Your task to perform on an android device: turn on notifications settings in the gmail app Image 0: 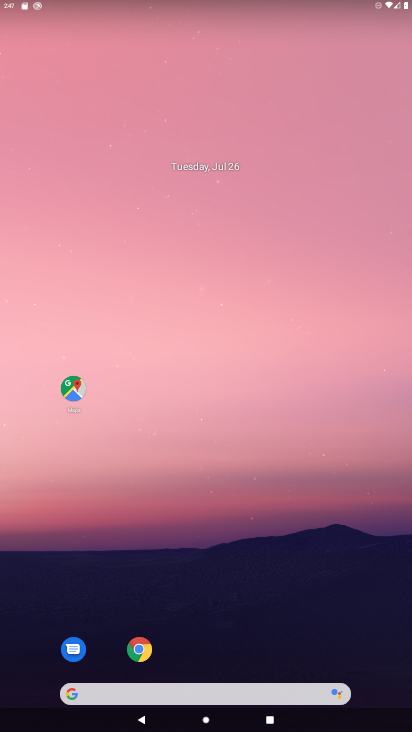
Step 0: drag from (237, 662) to (211, 324)
Your task to perform on an android device: turn on notifications settings in the gmail app Image 1: 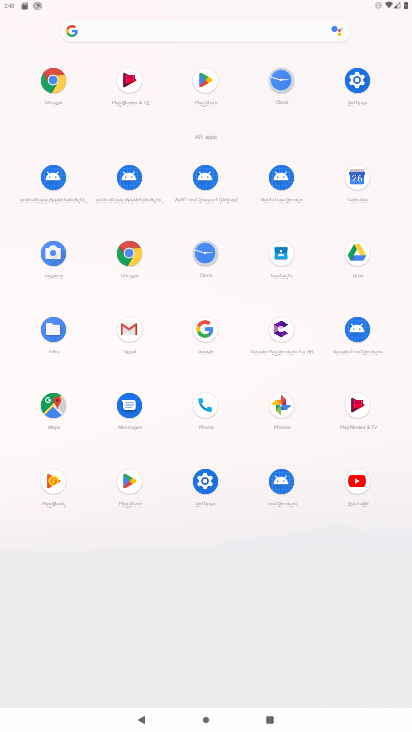
Step 1: click (133, 328)
Your task to perform on an android device: turn on notifications settings in the gmail app Image 2: 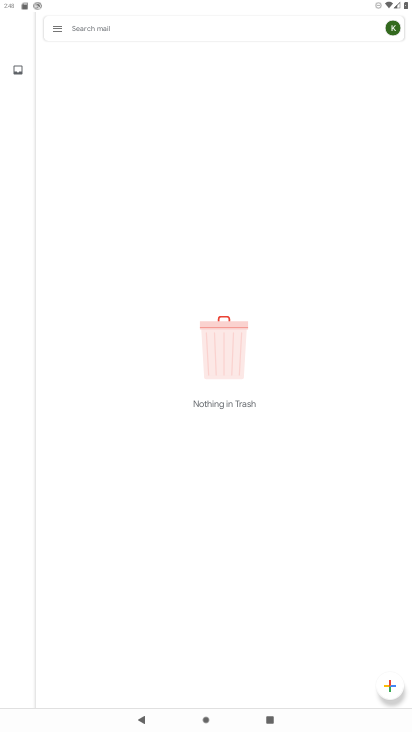
Step 2: click (47, 34)
Your task to perform on an android device: turn on notifications settings in the gmail app Image 3: 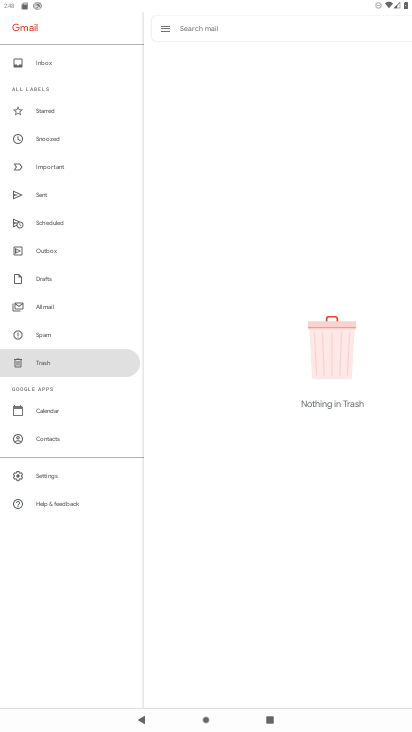
Step 3: click (45, 480)
Your task to perform on an android device: turn on notifications settings in the gmail app Image 4: 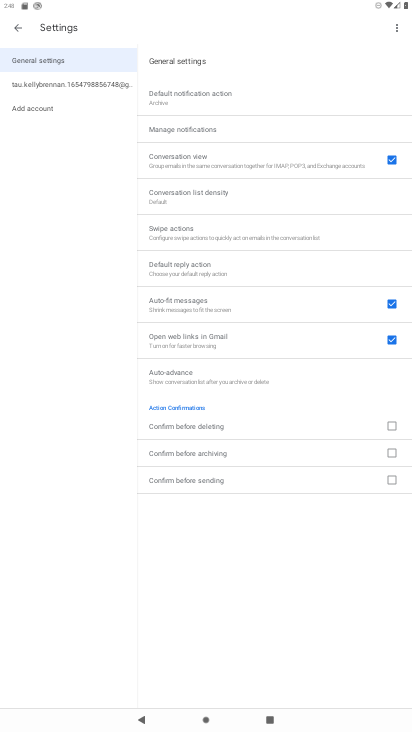
Step 4: click (83, 88)
Your task to perform on an android device: turn on notifications settings in the gmail app Image 5: 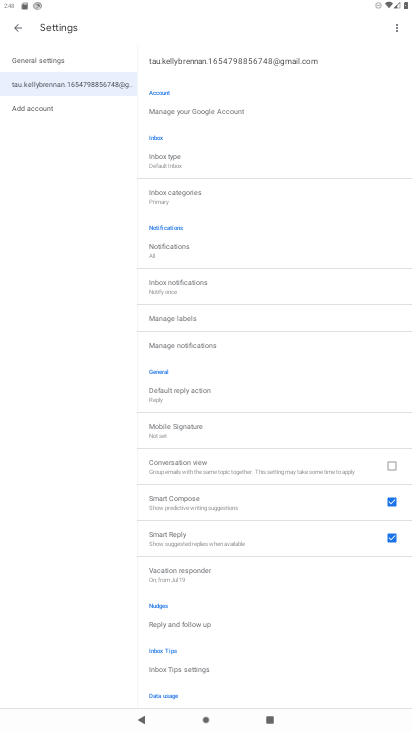
Step 5: click (173, 249)
Your task to perform on an android device: turn on notifications settings in the gmail app Image 6: 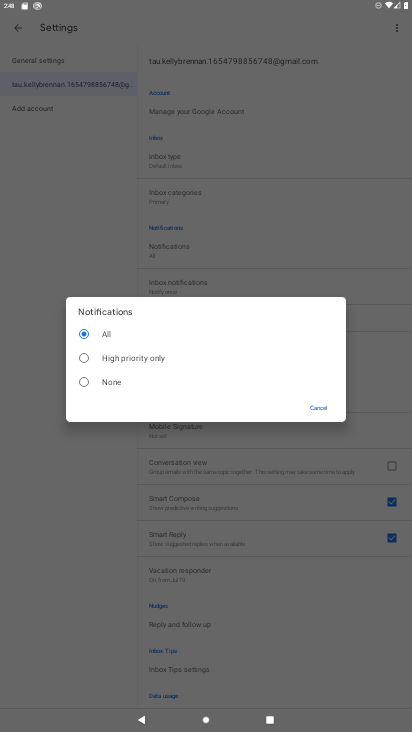
Step 6: task complete